Your task to perform on an android device: Open the Play Movies app and select the watchlist tab. Image 0: 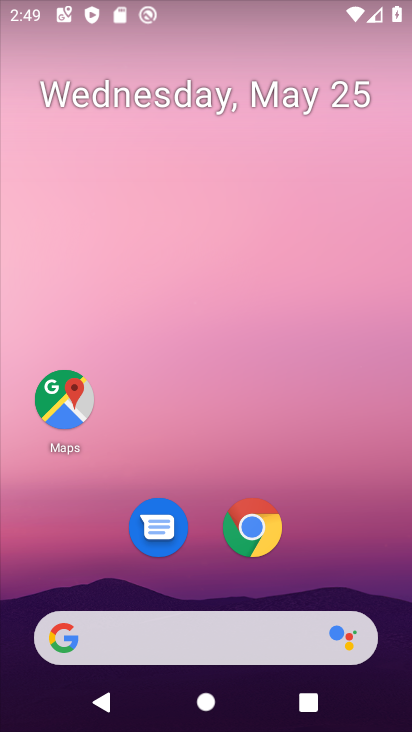
Step 0: drag from (149, 551) to (232, 39)
Your task to perform on an android device: Open the Play Movies app and select the watchlist tab. Image 1: 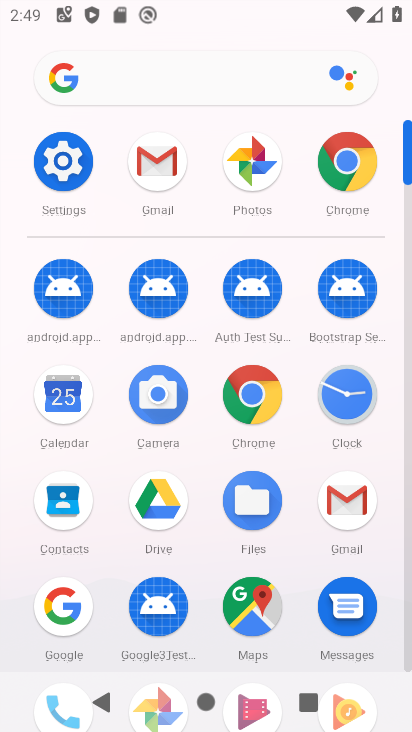
Step 1: drag from (241, 580) to (241, 165)
Your task to perform on an android device: Open the Play Movies app and select the watchlist tab. Image 2: 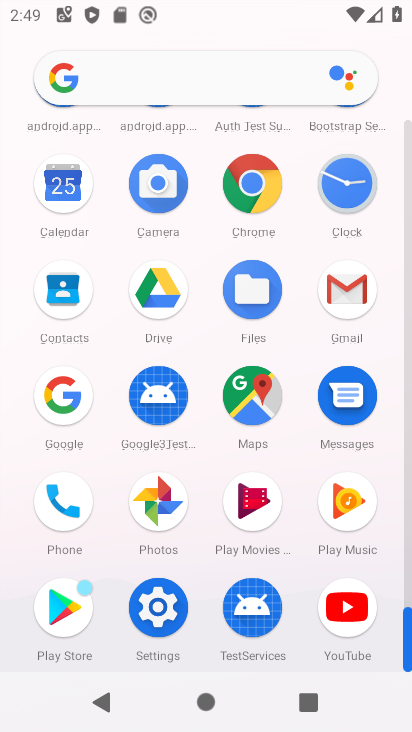
Step 2: click (255, 508)
Your task to perform on an android device: Open the Play Movies app and select the watchlist tab. Image 3: 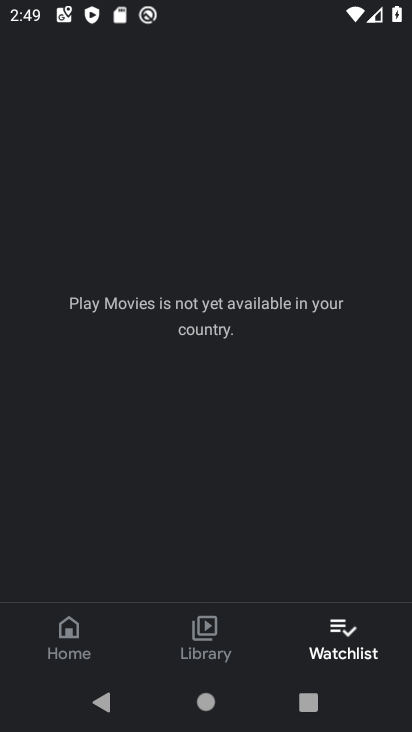
Step 3: click (331, 644)
Your task to perform on an android device: Open the Play Movies app and select the watchlist tab. Image 4: 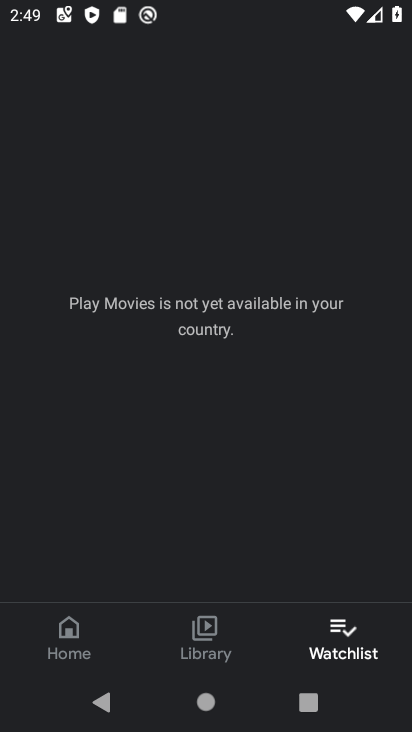
Step 4: task complete